Your task to perform on an android device: Open the calendar app, open the side menu, and click the "Day" option Image 0: 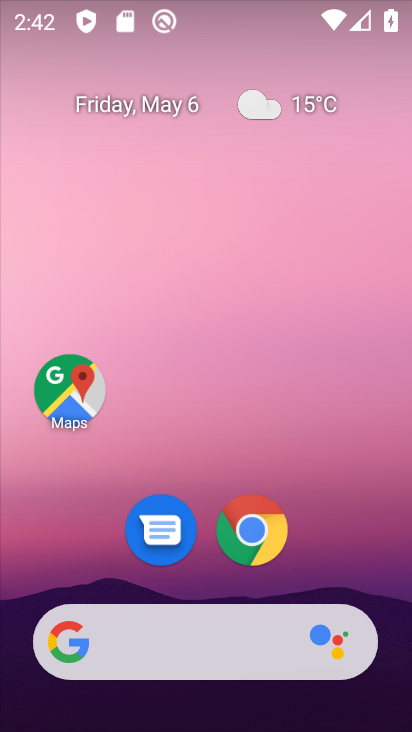
Step 0: drag from (321, 517) to (302, 56)
Your task to perform on an android device: Open the calendar app, open the side menu, and click the "Day" option Image 1: 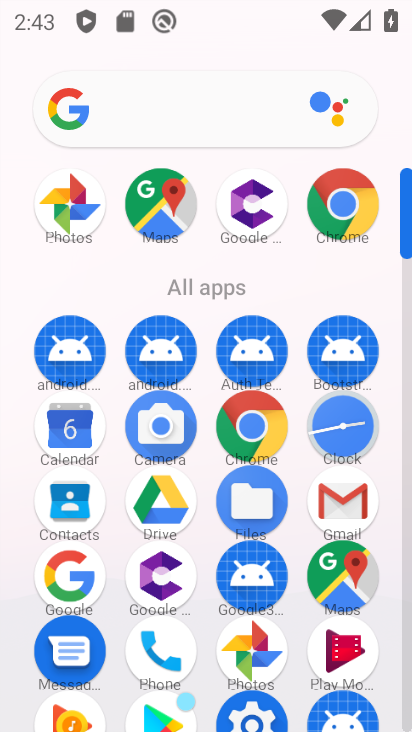
Step 1: click (65, 424)
Your task to perform on an android device: Open the calendar app, open the side menu, and click the "Day" option Image 2: 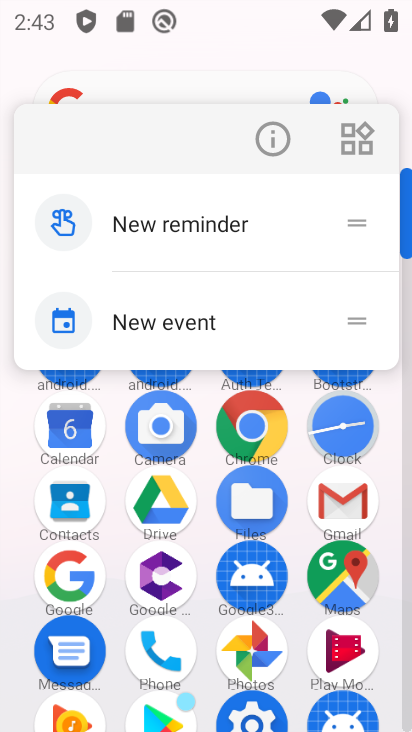
Step 2: click (60, 420)
Your task to perform on an android device: Open the calendar app, open the side menu, and click the "Day" option Image 3: 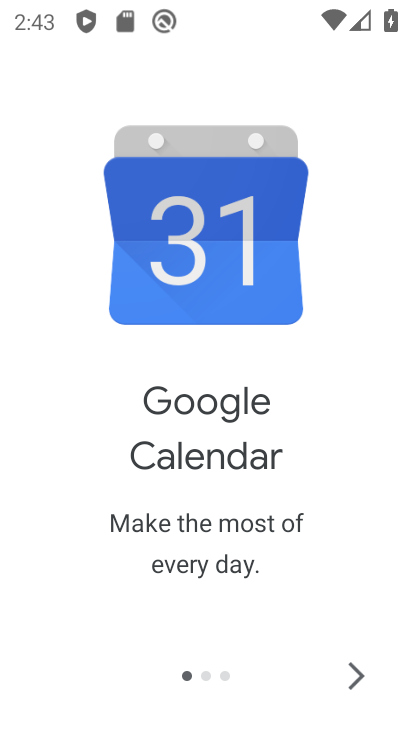
Step 3: click (367, 667)
Your task to perform on an android device: Open the calendar app, open the side menu, and click the "Day" option Image 4: 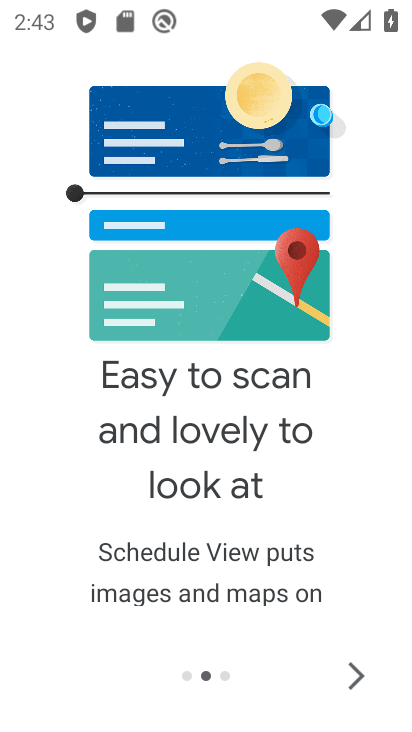
Step 4: click (361, 683)
Your task to perform on an android device: Open the calendar app, open the side menu, and click the "Day" option Image 5: 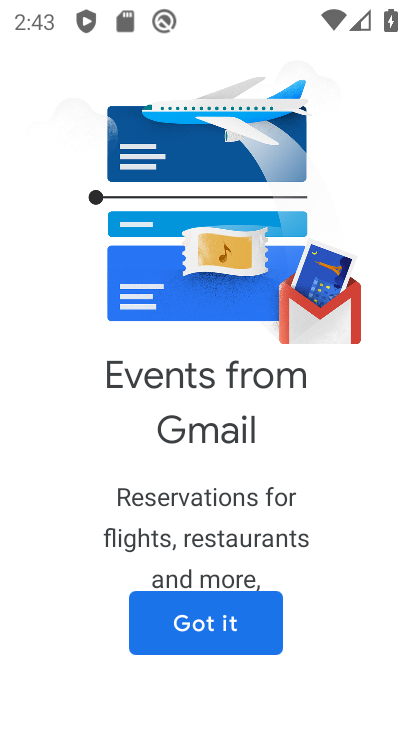
Step 5: click (200, 620)
Your task to perform on an android device: Open the calendar app, open the side menu, and click the "Day" option Image 6: 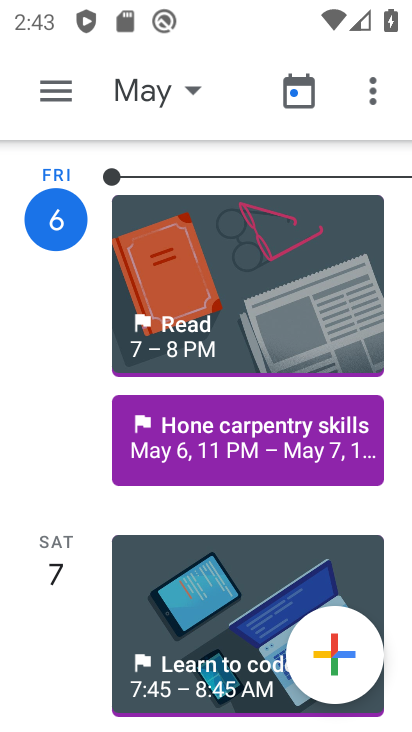
Step 6: click (60, 80)
Your task to perform on an android device: Open the calendar app, open the side menu, and click the "Day" option Image 7: 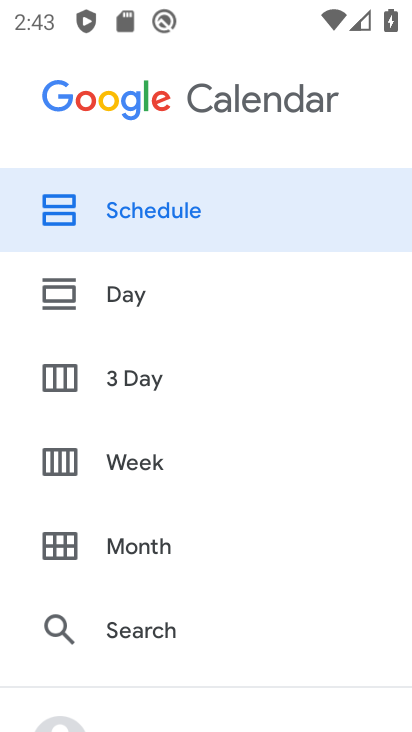
Step 7: click (97, 315)
Your task to perform on an android device: Open the calendar app, open the side menu, and click the "Day" option Image 8: 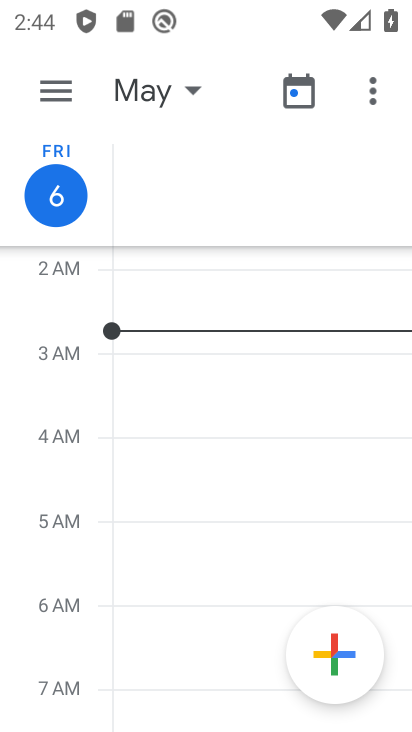
Step 8: task complete